Your task to perform on an android device: Show me popular videos on Youtube Image 0: 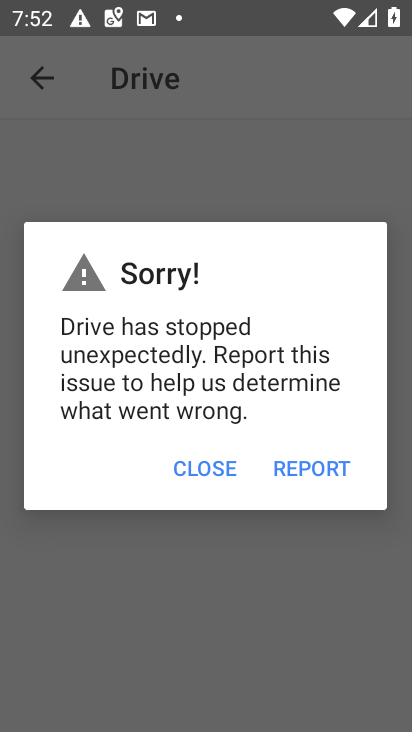
Step 0: press home button
Your task to perform on an android device: Show me popular videos on Youtube Image 1: 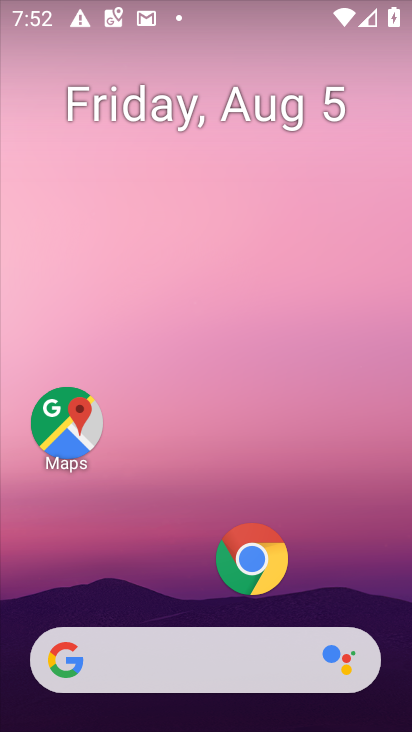
Step 1: drag from (176, 582) to (267, 10)
Your task to perform on an android device: Show me popular videos on Youtube Image 2: 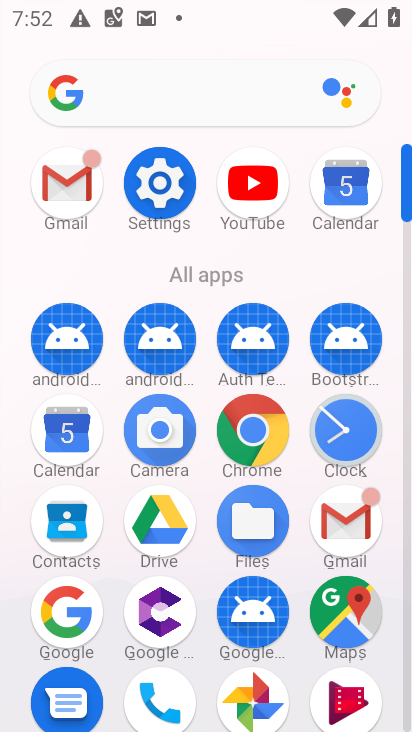
Step 2: click (262, 204)
Your task to perform on an android device: Show me popular videos on Youtube Image 3: 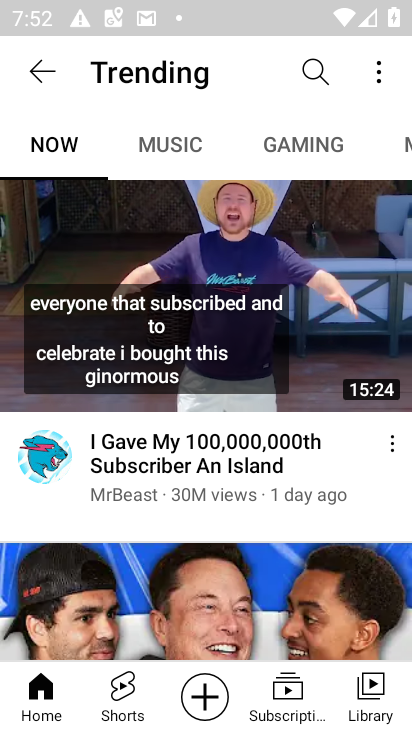
Step 3: task complete